Your task to perform on an android device: What's a good restaurant in Sacramento? Image 0: 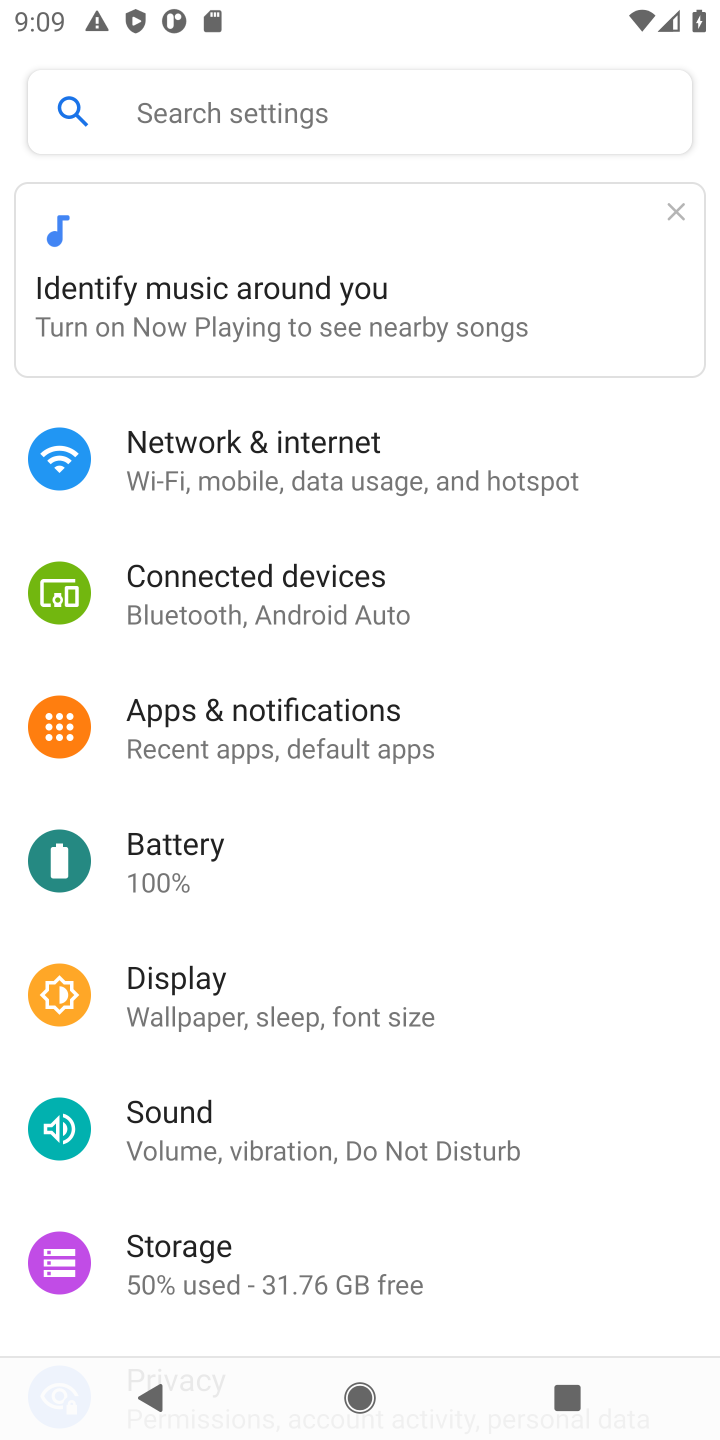
Step 0: press home button
Your task to perform on an android device: What's a good restaurant in Sacramento? Image 1: 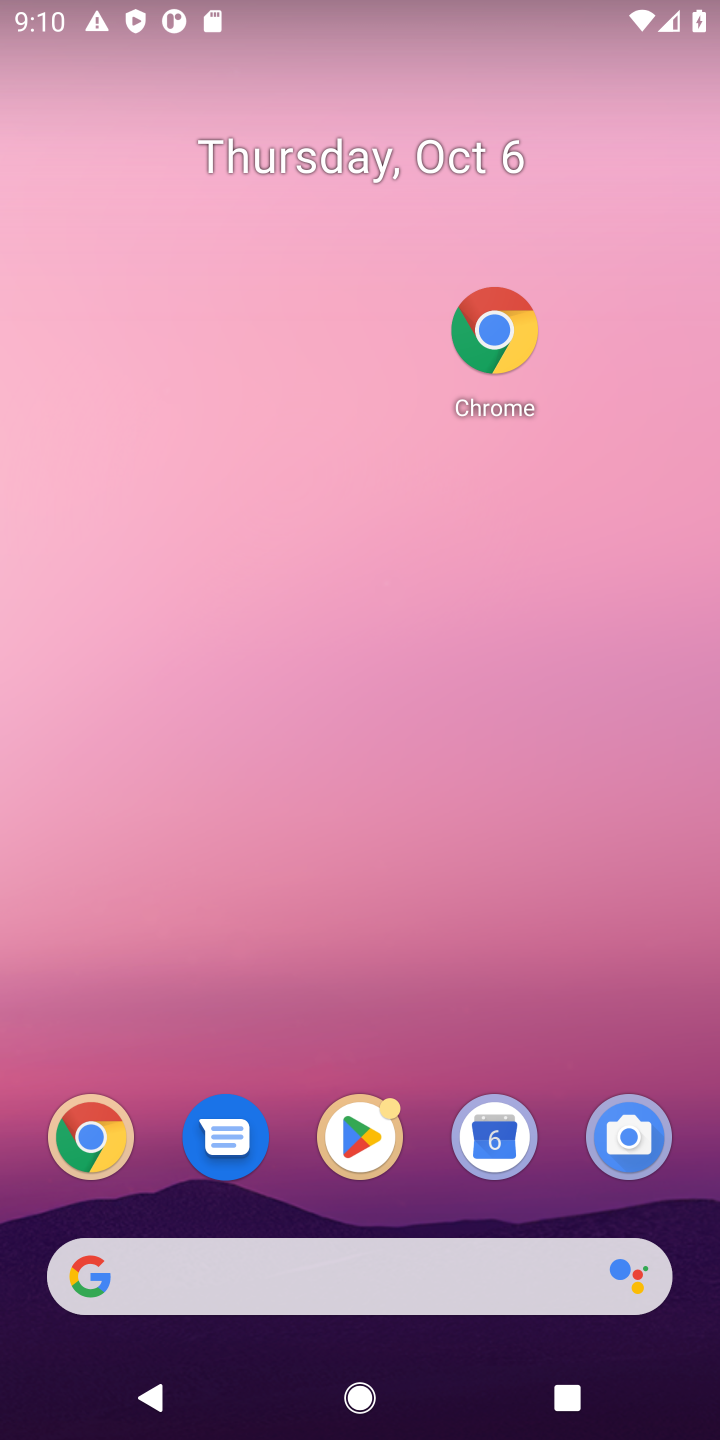
Step 1: click (104, 1133)
Your task to perform on an android device: What's a good restaurant in Sacramento? Image 2: 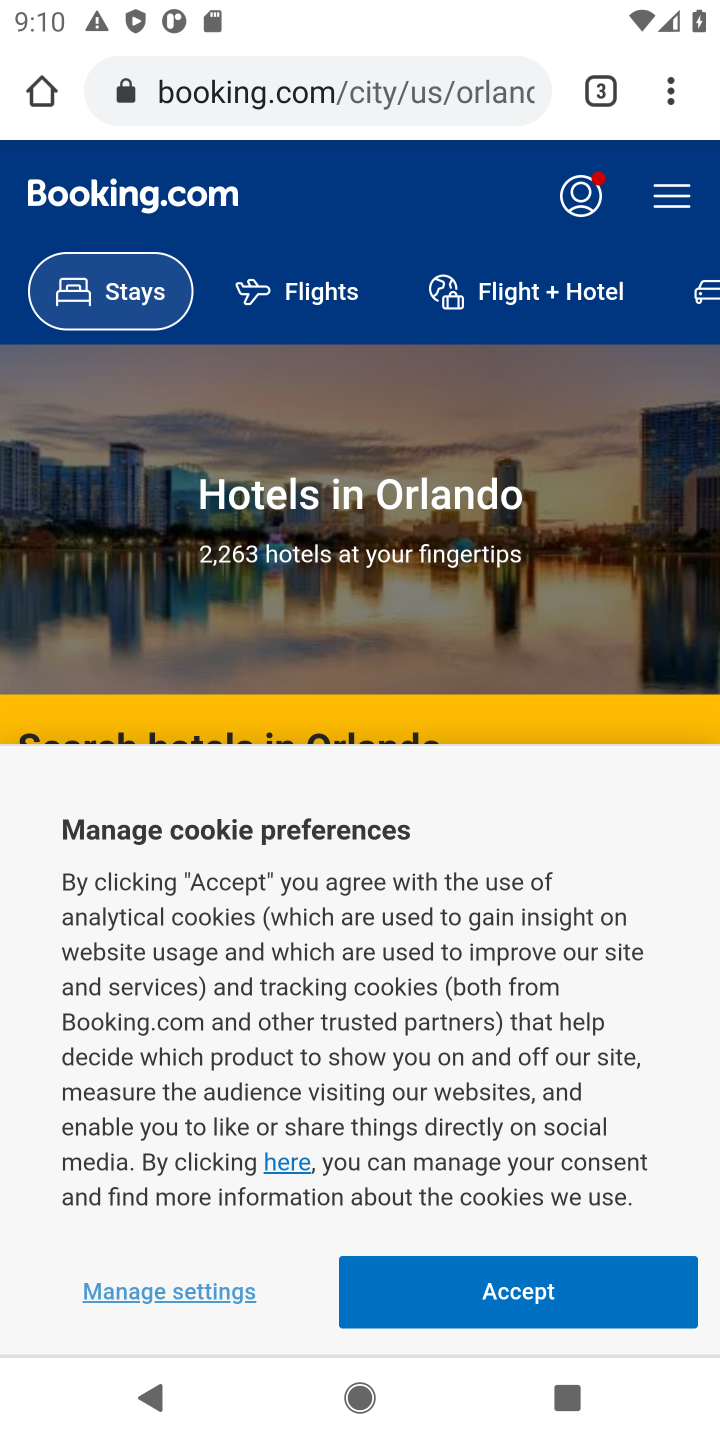
Step 2: click (467, 104)
Your task to perform on an android device: What's a good restaurant in Sacramento? Image 3: 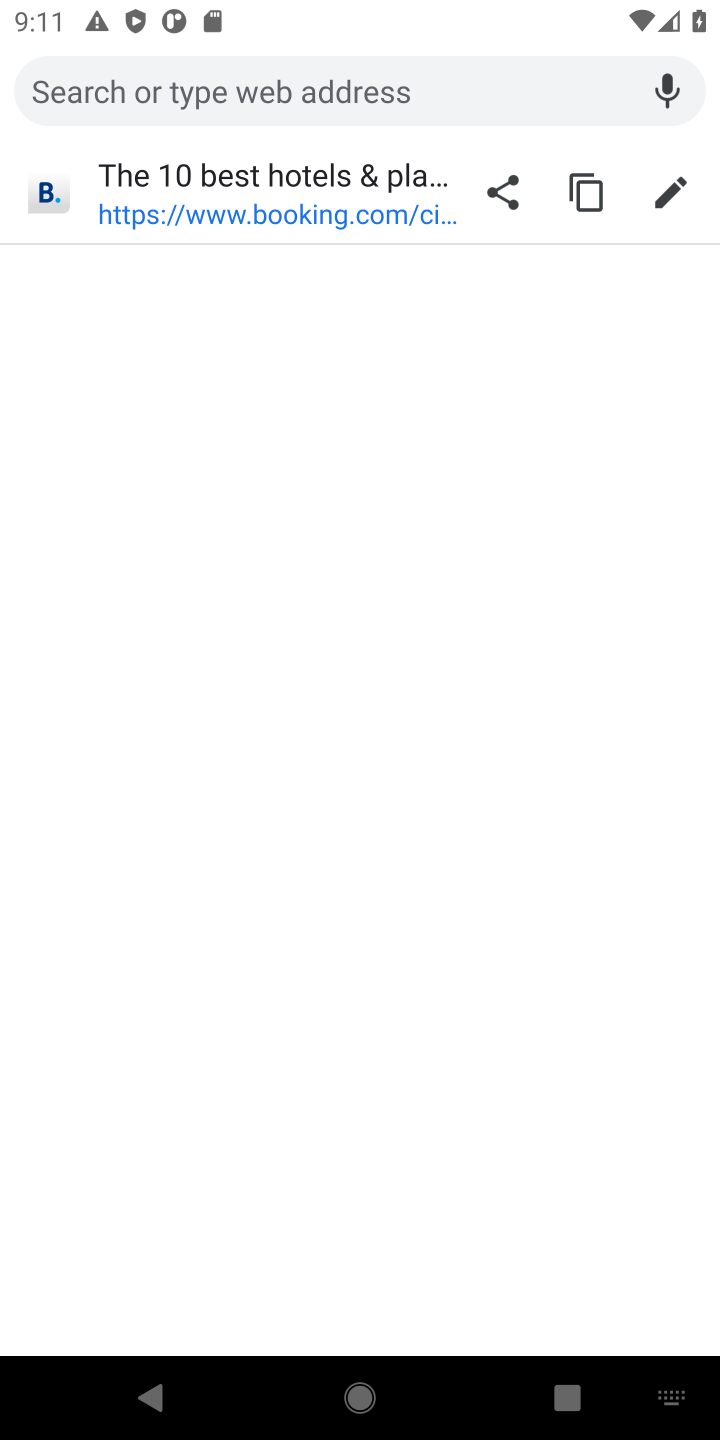
Step 3: type "a good restaurant in Sacramento"
Your task to perform on an android device: What's a good restaurant in Sacramento? Image 4: 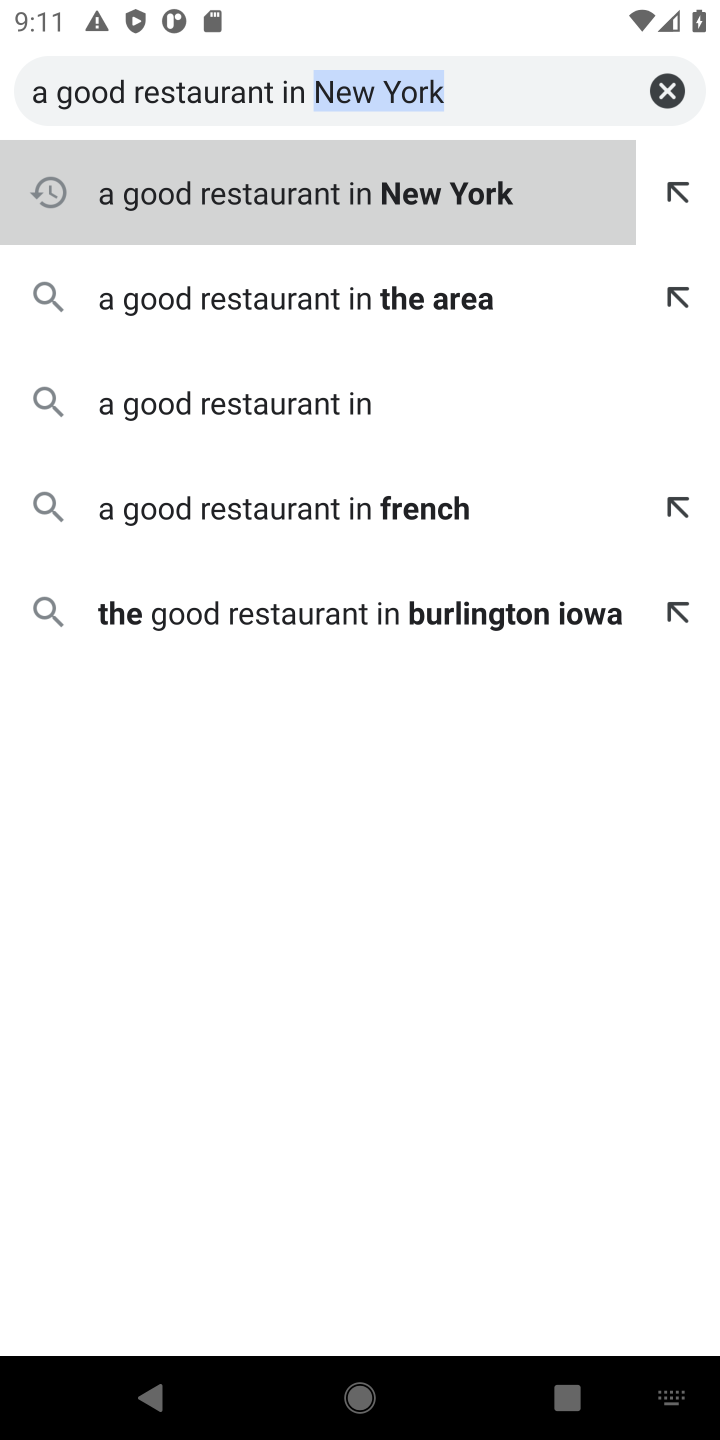
Step 4: click (675, 94)
Your task to perform on an android device: What's a good restaurant in Sacramento? Image 5: 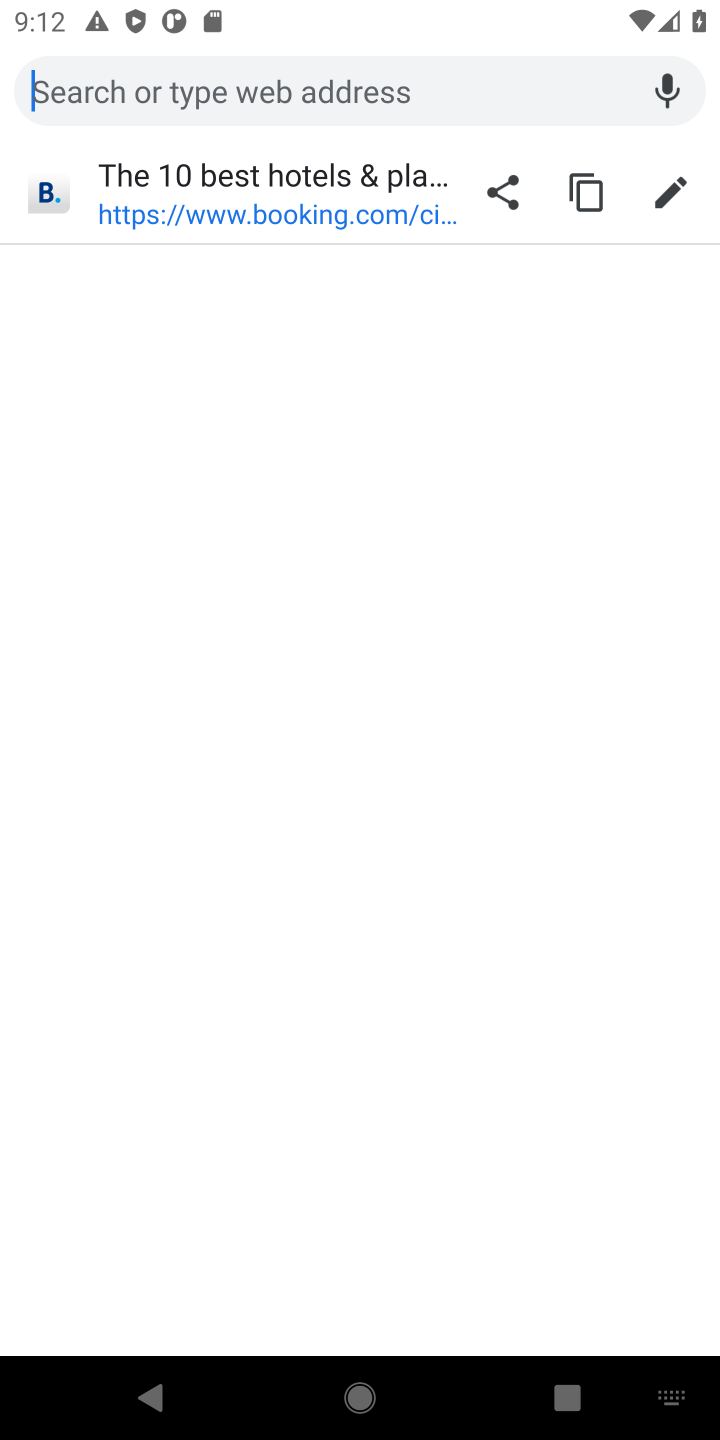
Step 5: type "a good restaurant in  sacramento"
Your task to perform on an android device: What's a good restaurant in Sacramento? Image 6: 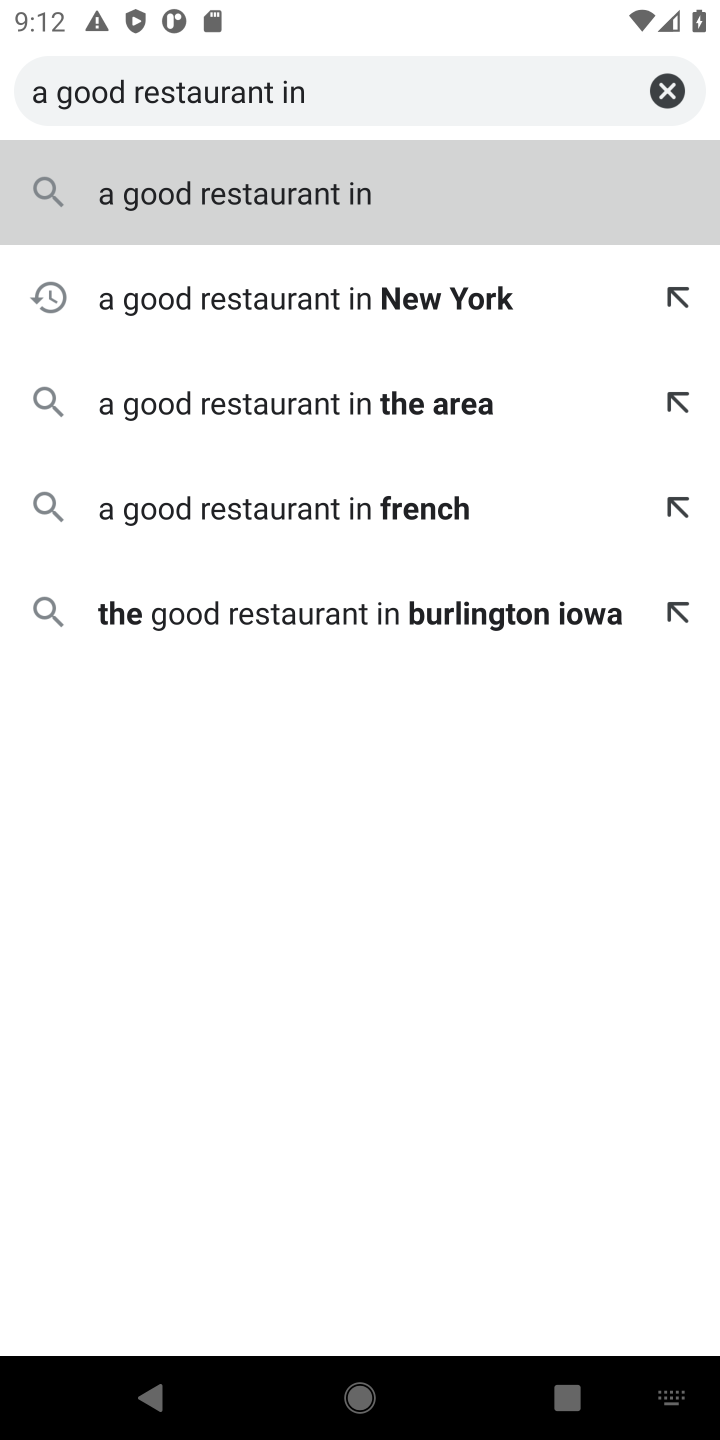
Step 6: type "sacramento"
Your task to perform on an android device: What's a good restaurant in Sacramento? Image 7: 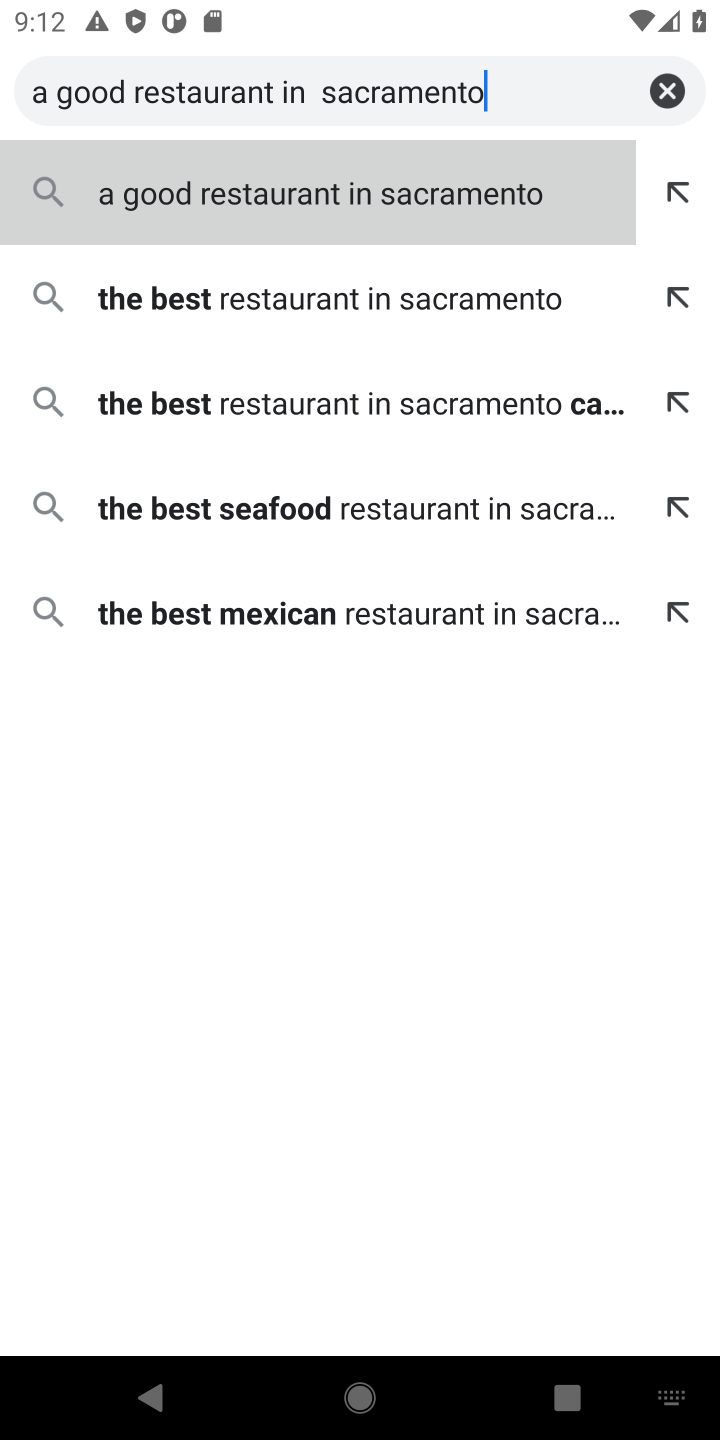
Step 7: click (386, 207)
Your task to perform on an android device: What's a good restaurant in Sacramento? Image 8: 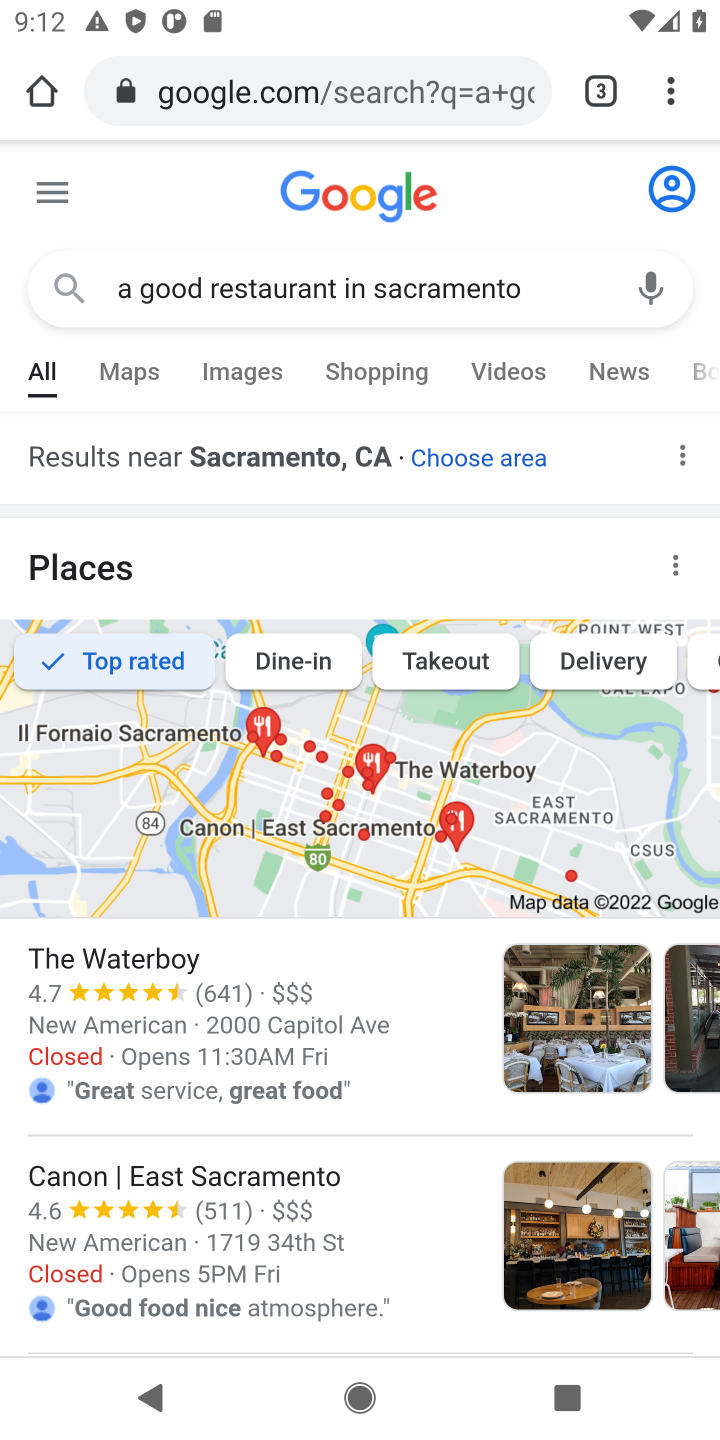
Step 8: click (140, 975)
Your task to perform on an android device: What's a good restaurant in Sacramento? Image 9: 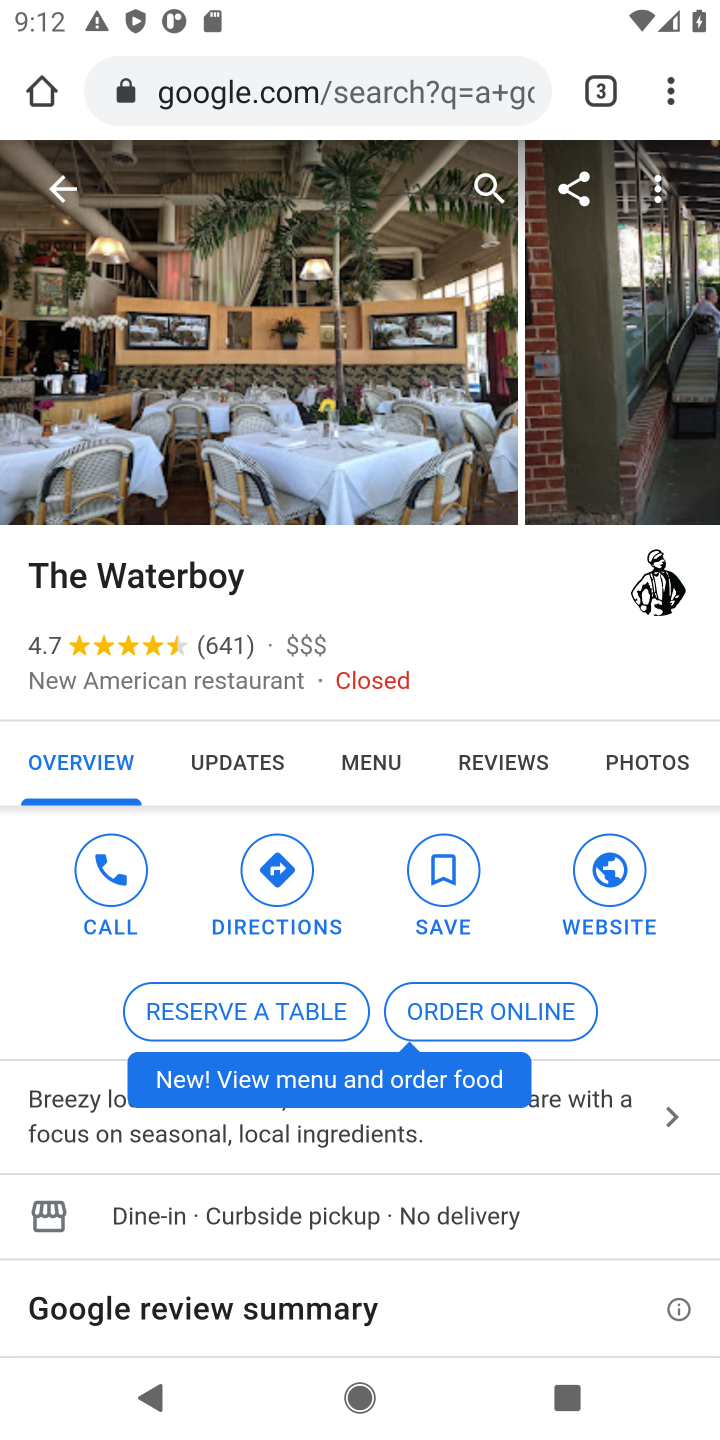
Step 9: task complete